Your task to perform on an android device: Open settings Image 0: 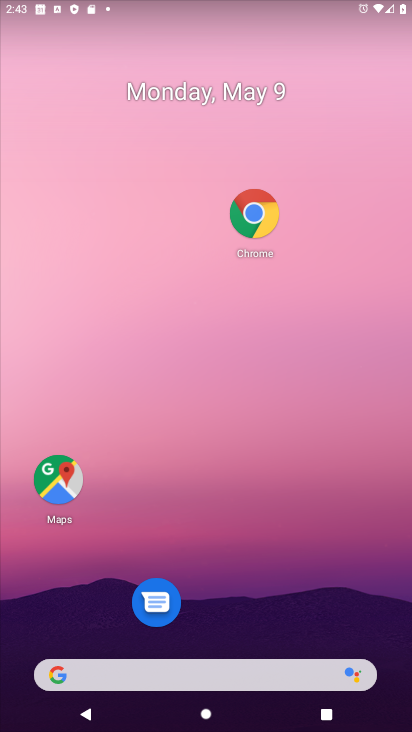
Step 0: drag from (233, 594) to (129, 102)
Your task to perform on an android device: Open settings Image 1: 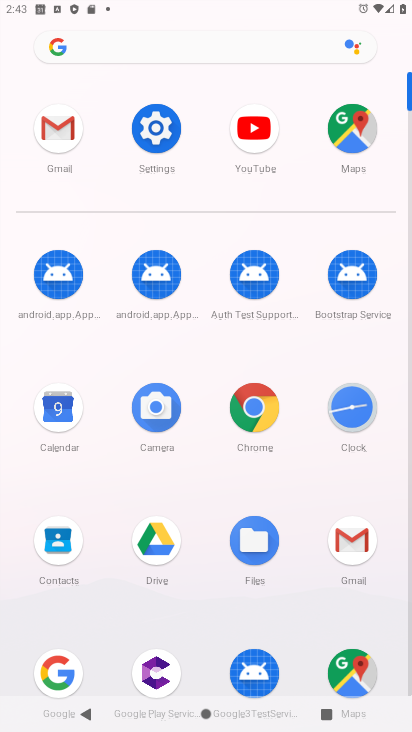
Step 1: click (152, 147)
Your task to perform on an android device: Open settings Image 2: 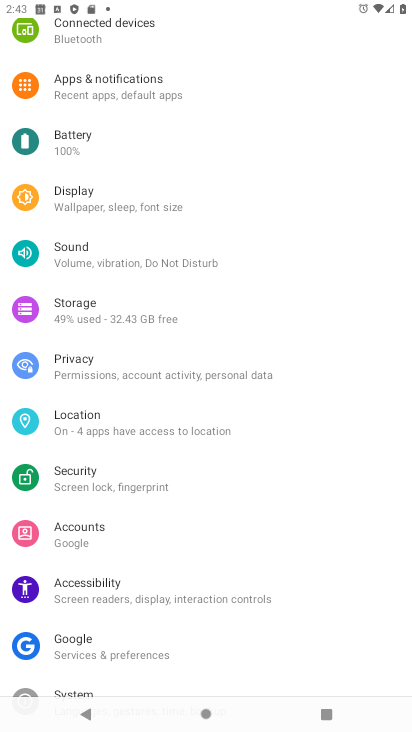
Step 2: task complete